Your task to perform on an android device: Open Wikipedia Image 0: 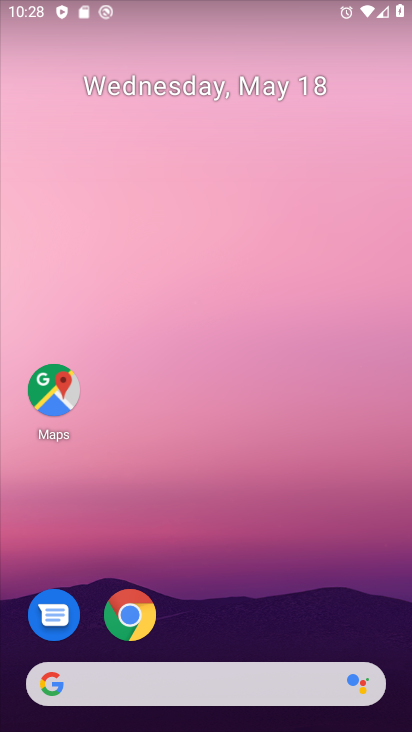
Step 0: click (142, 627)
Your task to perform on an android device: Open Wikipedia Image 1: 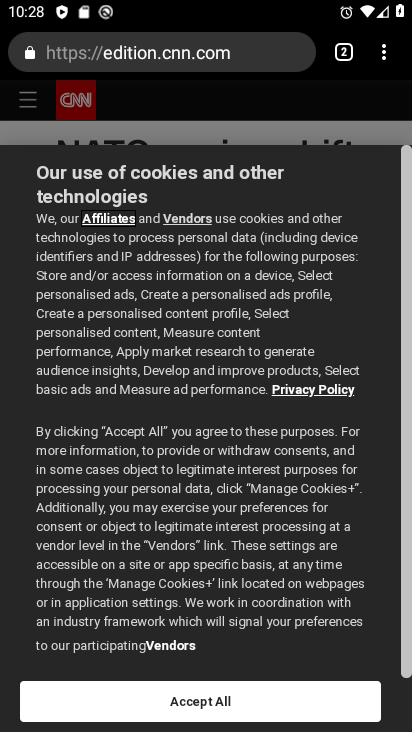
Step 1: click (345, 54)
Your task to perform on an android device: Open Wikipedia Image 2: 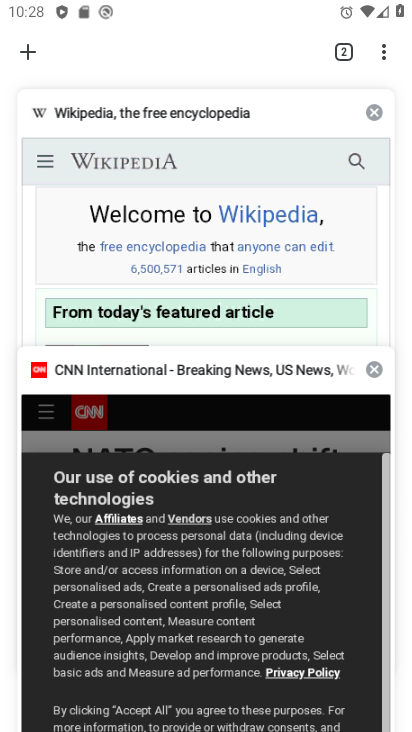
Step 2: click (368, 371)
Your task to perform on an android device: Open Wikipedia Image 3: 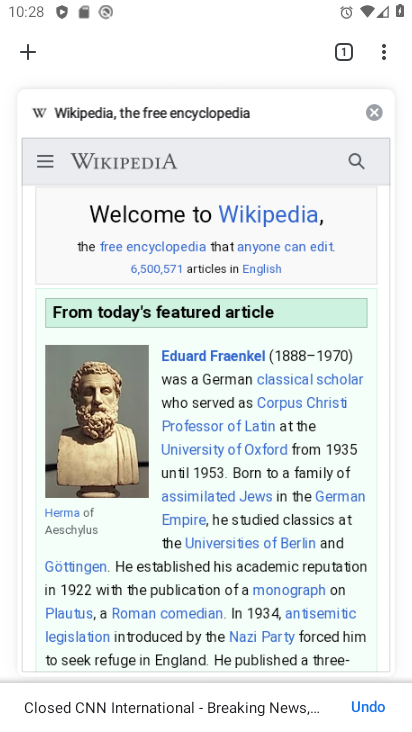
Step 3: click (211, 482)
Your task to perform on an android device: Open Wikipedia Image 4: 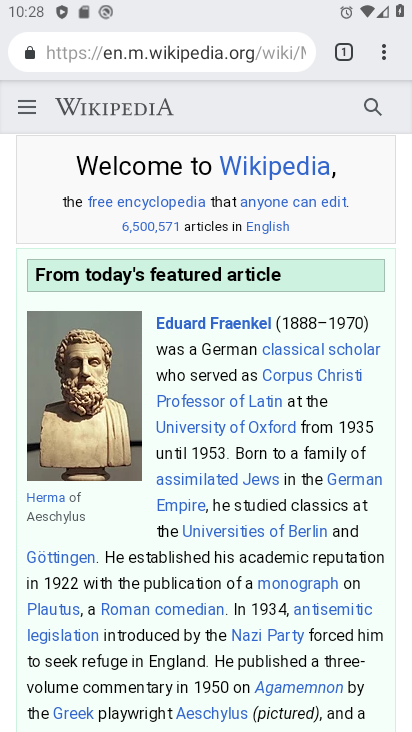
Step 4: task complete